Your task to perform on an android device: turn off notifications in google photos Image 0: 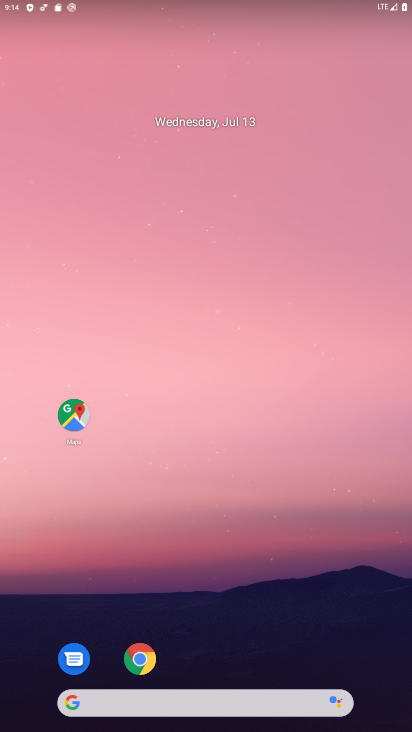
Step 0: drag from (386, 636) to (355, 184)
Your task to perform on an android device: turn off notifications in google photos Image 1: 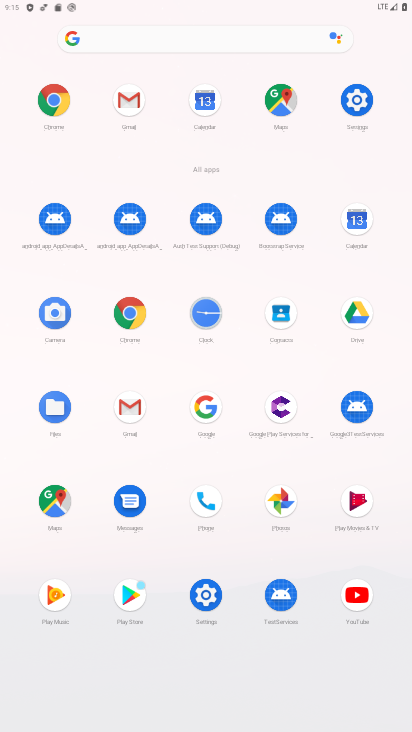
Step 1: click (281, 502)
Your task to perform on an android device: turn off notifications in google photos Image 2: 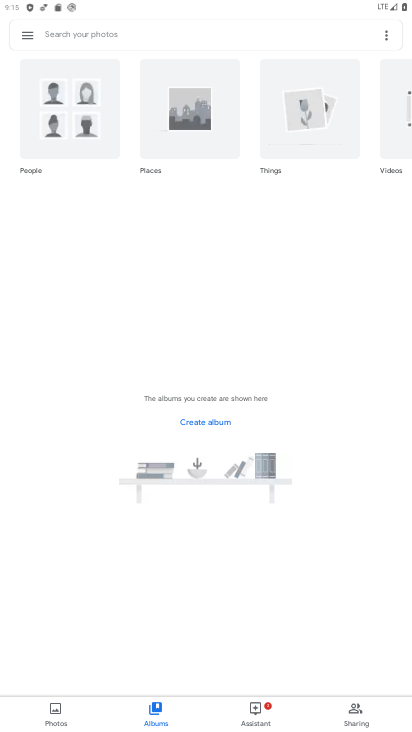
Step 2: click (29, 37)
Your task to perform on an android device: turn off notifications in google photos Image 3: 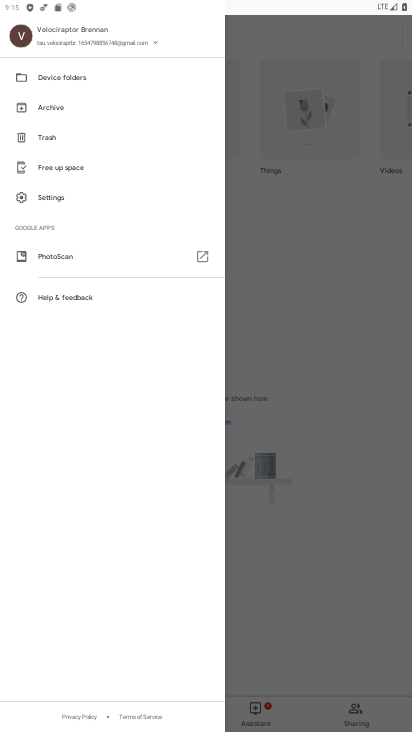
Step 3: click (49, 206)
Your task to perform on an android device: turn off notifications in google photos Image 4: 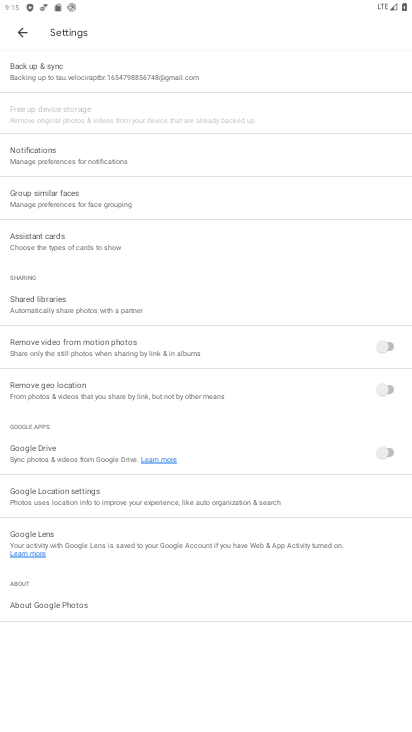
Step 4: click (42, 151)
Your task to perform on an android device: turn off notifications in google photos Image 5: 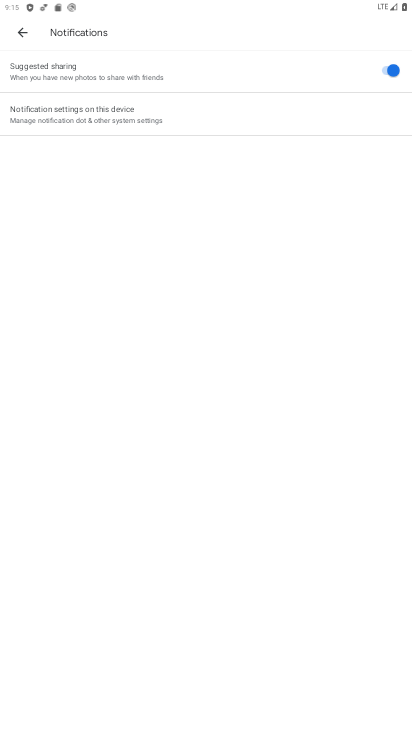
Step 5: click (53, 120)
Your task to perform on an android device: turn off notifications in google photos Image 6: 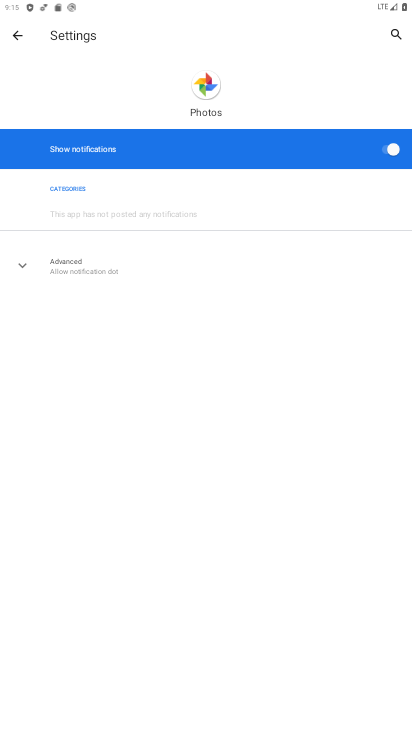
Step 6: click (385, 150)
Your task to perform on an android device: turn off notifications in google photos Image 7: 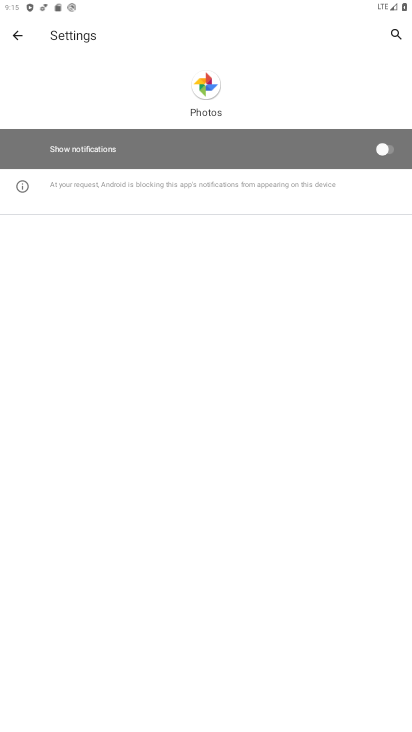
Step 7: task complete